Your task to perform on an android device: Go to battery settings Image 0: 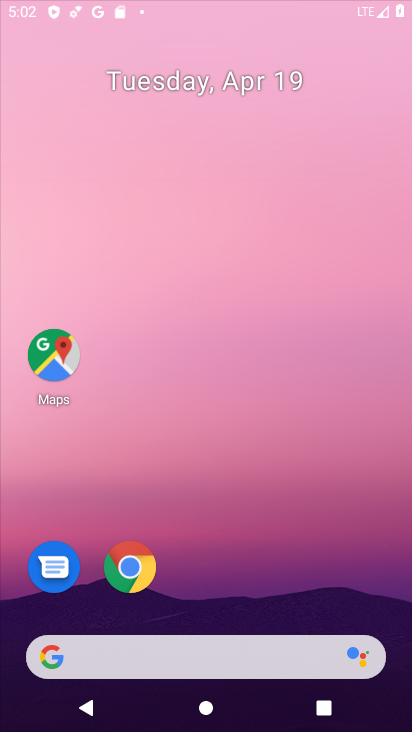
Step 0: click (298, 2)
Your task to perform on an android device: Go to battery settings Image 1: 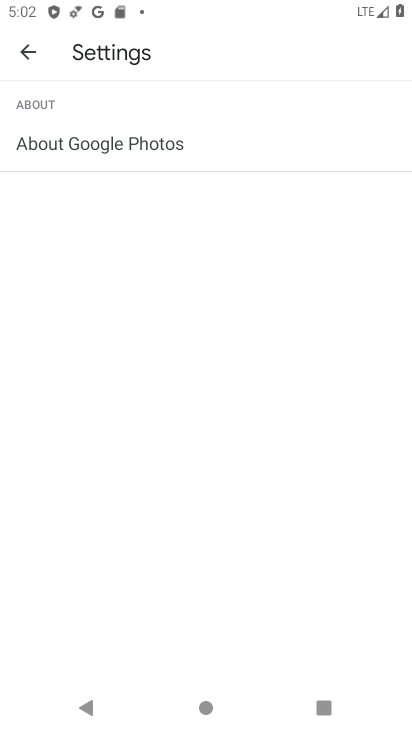
Step 1: press home button
Your task to perform on an android device: Go to battery settings Image 2: 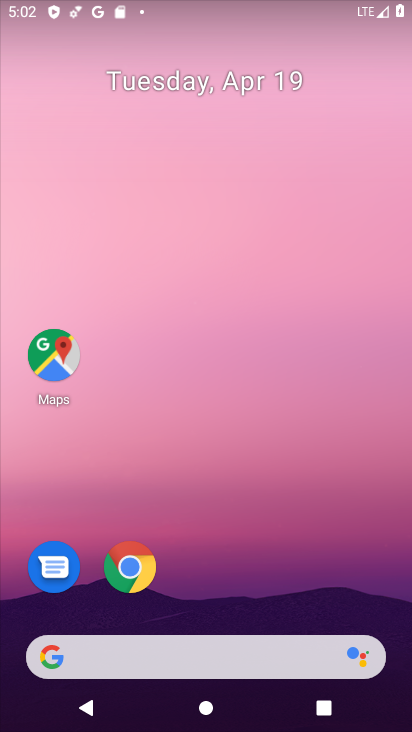
Step 2: drag from (350, 553) to (356, 41)
Your task to perform on an android device: Go to battery settings Image 3: 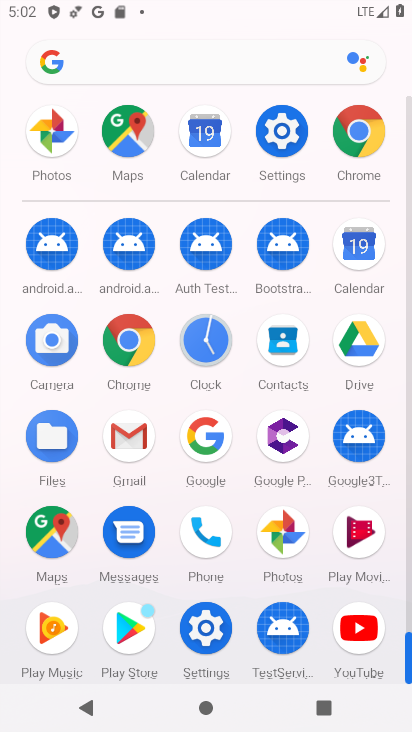
Step 3: click (213, 633)
Your task to perform on an android device: Go to battery settings Image 4: 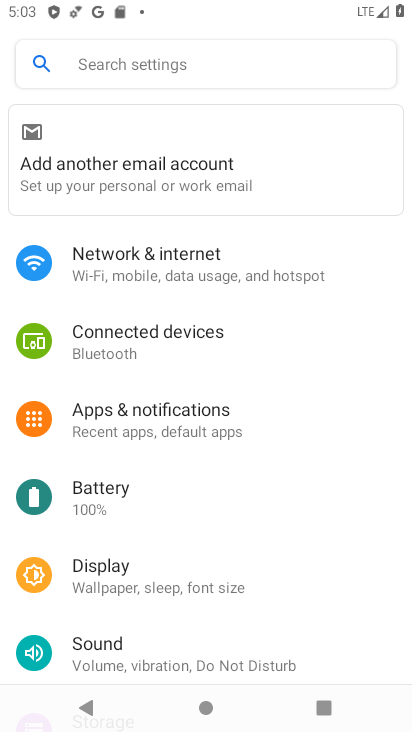
Step 4: click (171, 496)
Your task to perform on an android device: Go to battery settings Image 5: 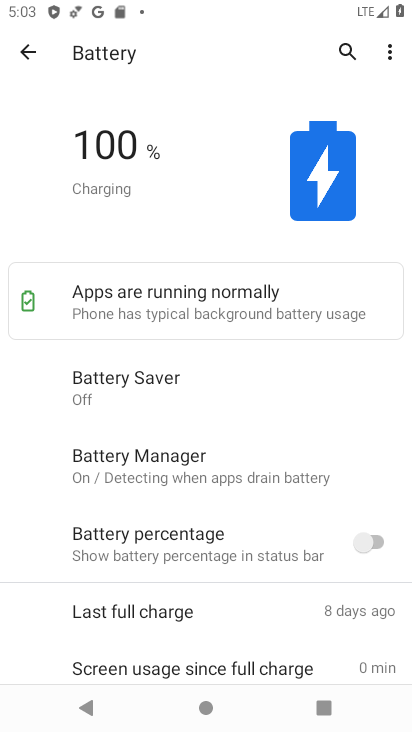
Step 5: task complete